Your task to perform on an android device: open app "PUBG MOBILE" (install if not already installed) Image 0: 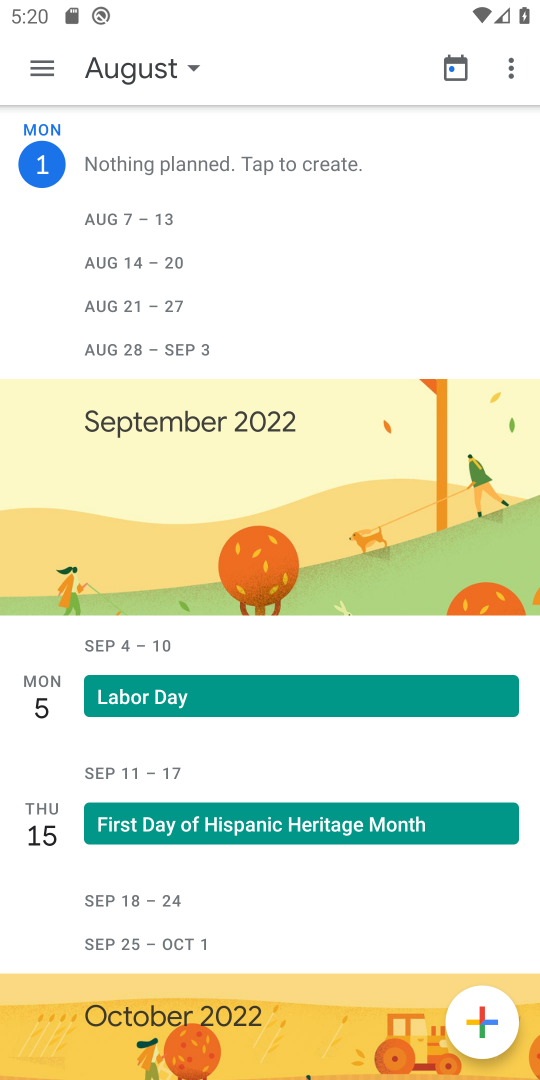
Step 0: press back button
Your task to perform on an android device: open app "PUBG MOBILE" (install if not already installed) Image 1: 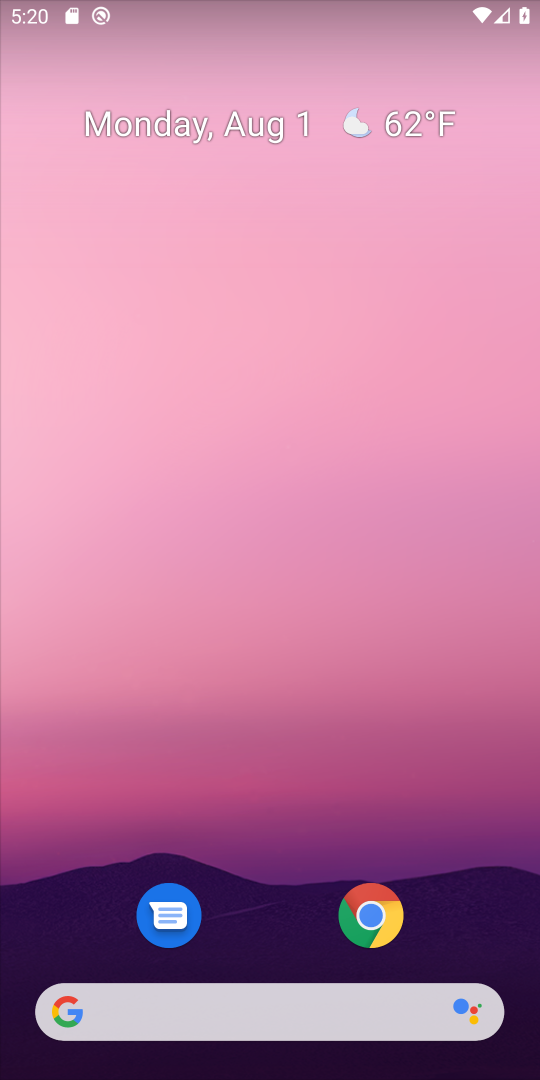
Step 1: drag from (326, 758) to (363, 123)
Your task to perform on an android device: open app "PUBG MOBILE" (install if not already installed) Image 2: 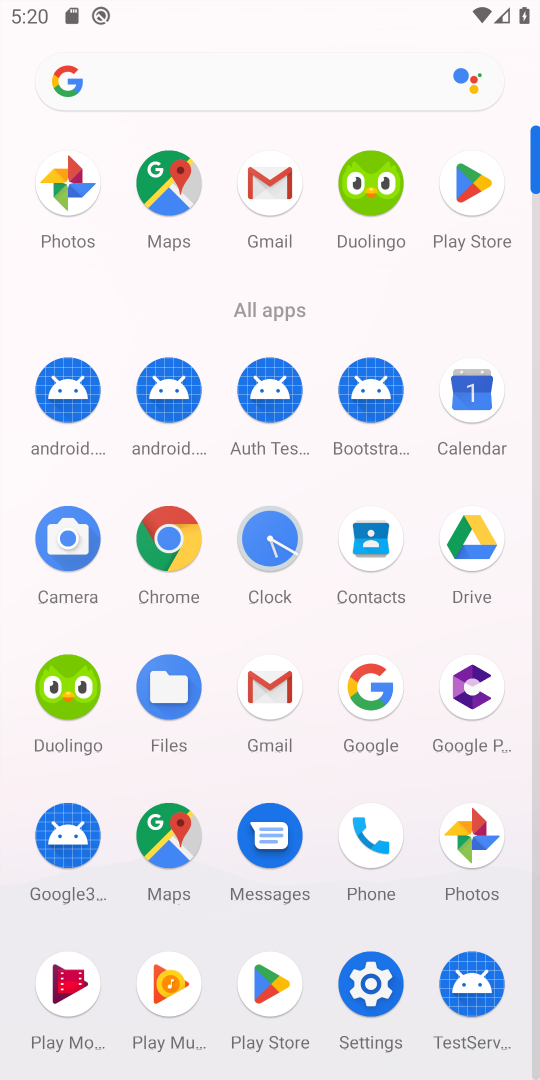
Step 2: click (485, 180)
Your task to perform on an android device: open app "PUBG MOBILE" (install if not already installed) Image 3: 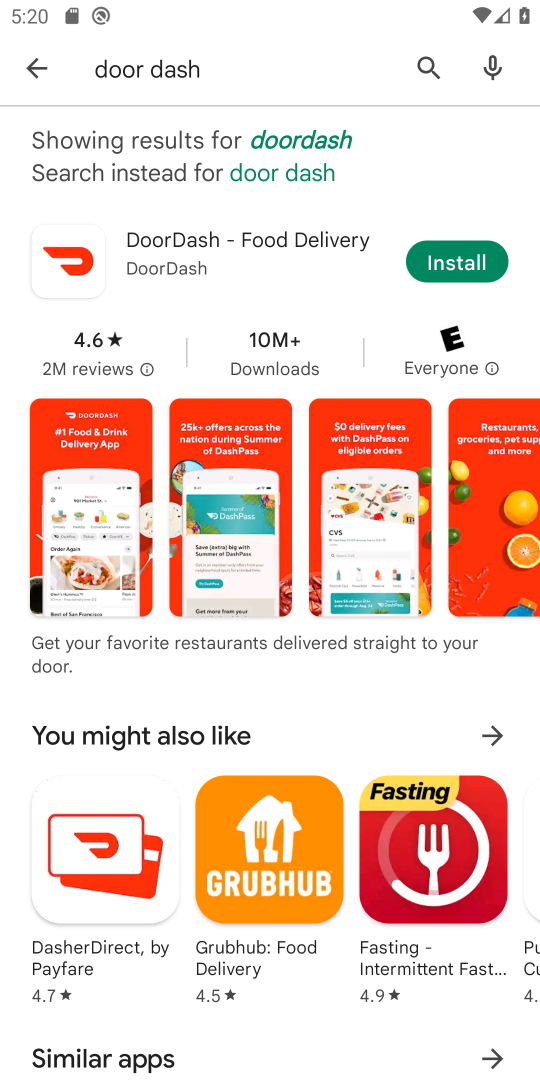
Step 3: click (426, 58)
Your task to perform on an android device: open app "PUBG MOBILE" (install if not already installed) Image 4: 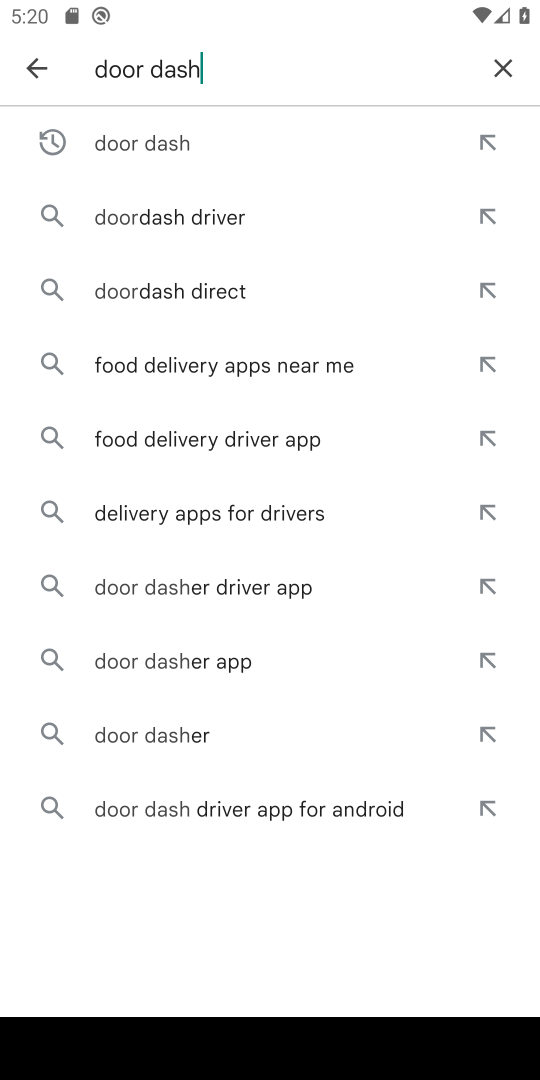
Step 4: click (492, 63)
Your task to perform on an android device: open app "PUBG MOBILE" (install if not already installed) Image 5: 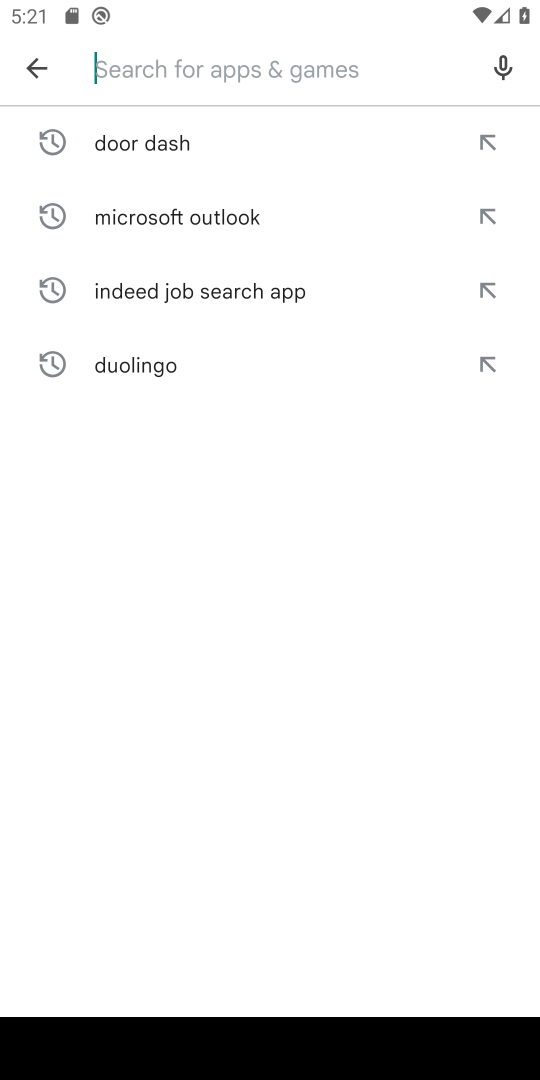
Step 5: click (153, 66)
Your task to perform on an android device: open app "PUBG MOBILE" (install if not already installed) Image 6: 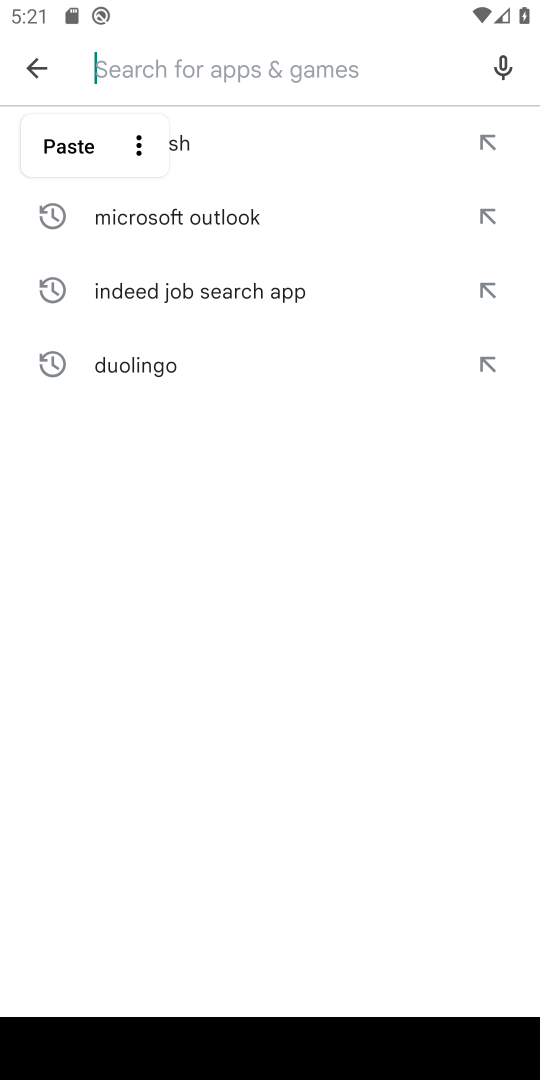
Step 6: type "pubg mobile"
Your task to perform on an android device: open app "PUBG MOBILE" (install if not already installed) Image 7: 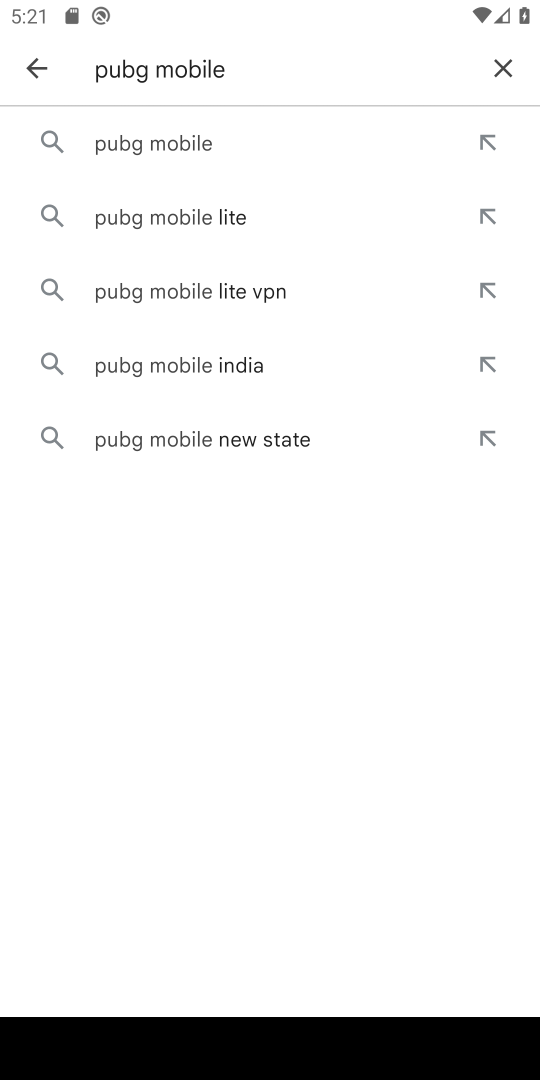
Step 7: click (142, 141)
Your task to perform on an android device: open app "PUBG MOBILE" (install if not already installed) Image 8: 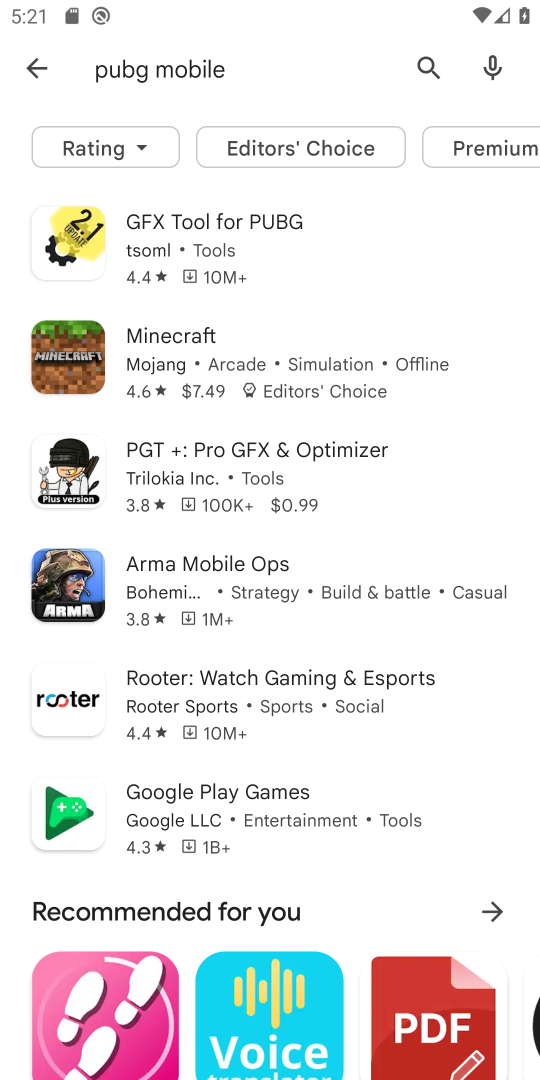
Step 8: task complete